Your task to perform on an android device: Search for good Korean restaurants Image 0: 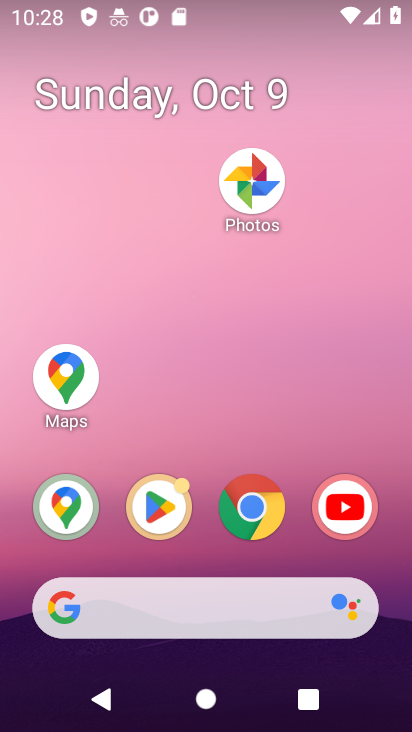
Step 0: drag from (212, 549) to (286, 0)
Your task to perform on an android device: Search for good Korean restaurants Image 1: 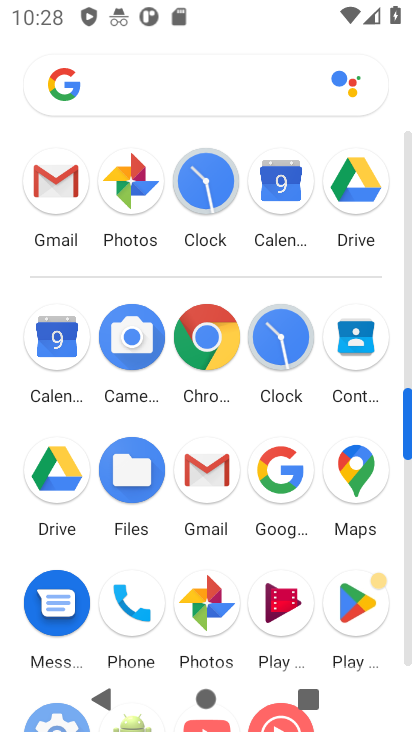
Step 1: click (209, 333)
Your task to perform on an android device: Search for good Korean restaurants Image 2: 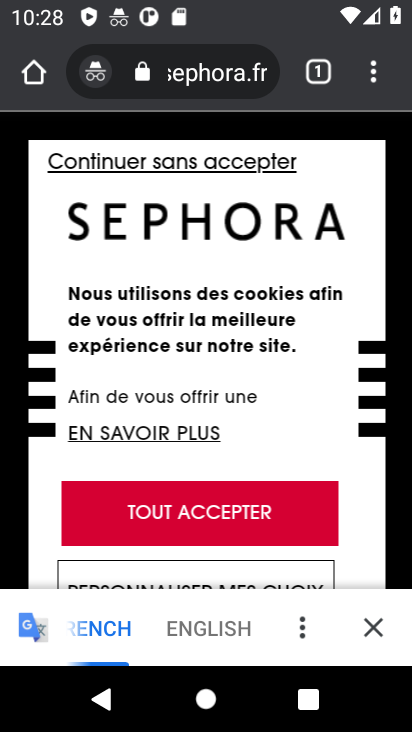
Step 2: click (206, 81)
Your task to perform on an android device: Search for good Korean restaurants Image 3: 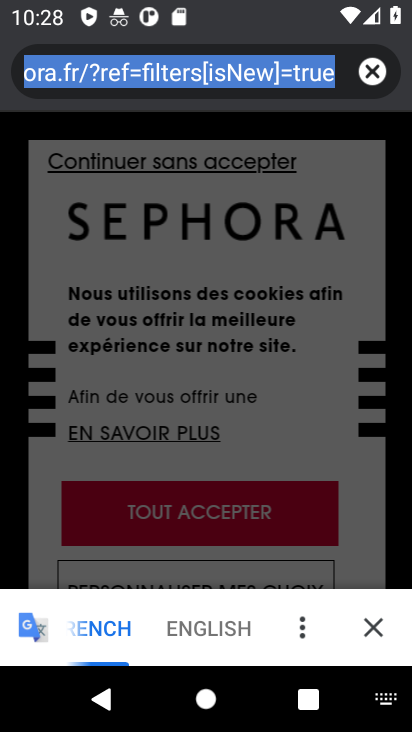
Step 3: type "good Korean restaurants"
Your task to perform on an android device: Search for good Korean restaurants Image 4: 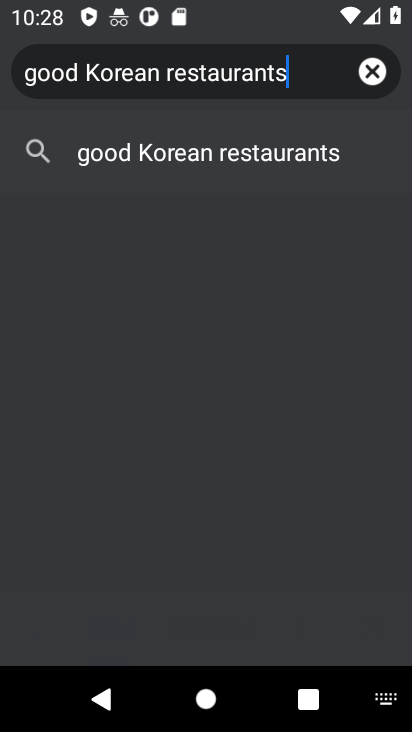
Step 4: press enter
Your task to perform on an android device: Search for good Korean restaurants Image 5: 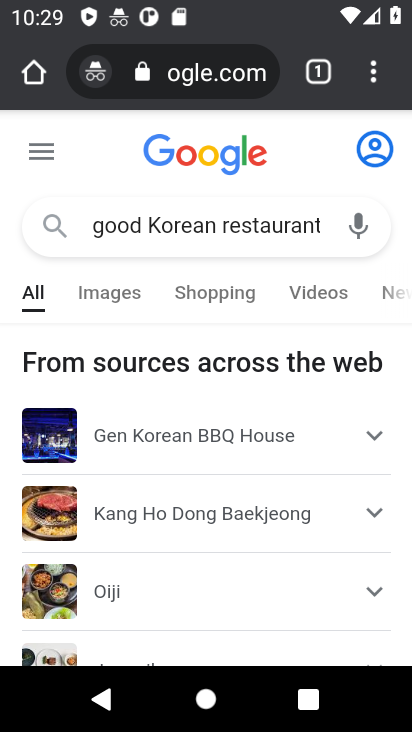
Step 5: drag from (193, 588) to (275, 82)
Your task to perform on an android device: Search for good Korean restaurants Image 6: 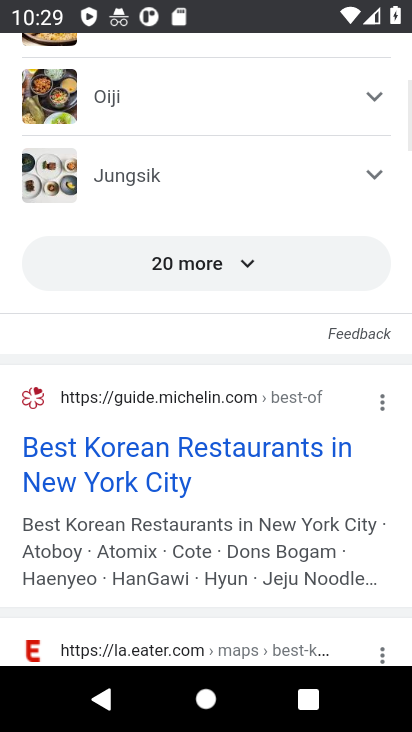
Step 6: drag from (284, 505) to (290, 183)
Your task to perform on an android device: Search for good Korean restaurants Image 7: 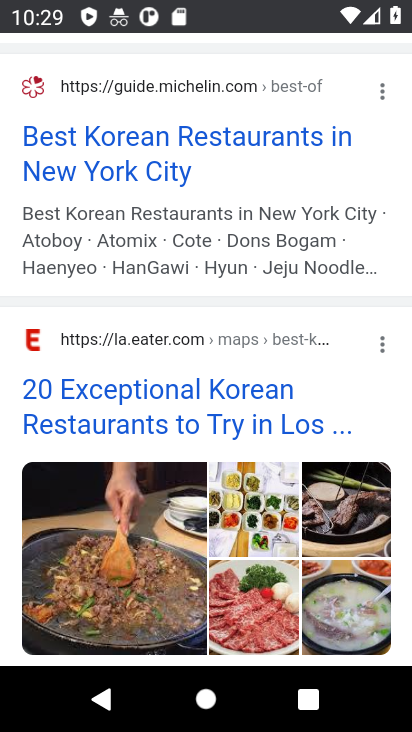
Step 7: drag from (239, 397) to (209, 572)
Your task to perform on an android device: Search for good Korean restaurants Image 8: 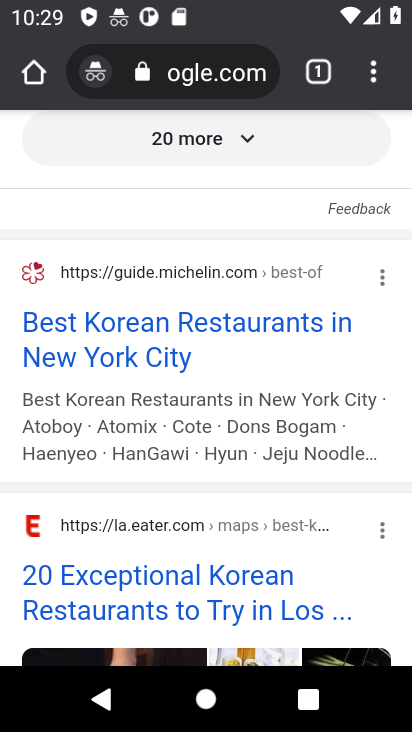
Step 8: click (192, 330)
Your task to perform on an android device: Search for good Korean restaurants Image 9: 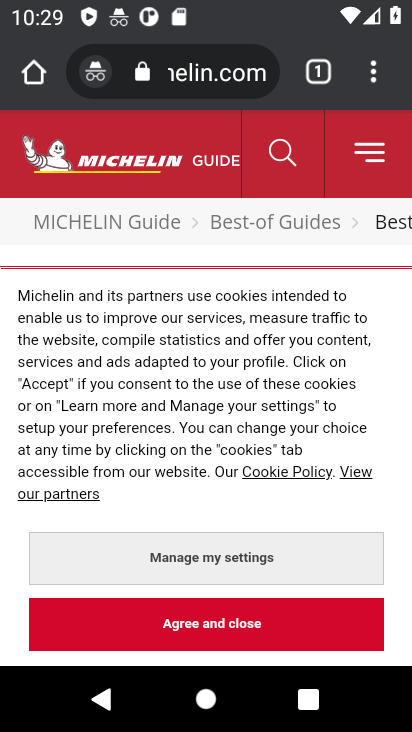
Step 9: click (290, 615)
Your task to perform on an android device: Search for good Korean restaurants Image 10: 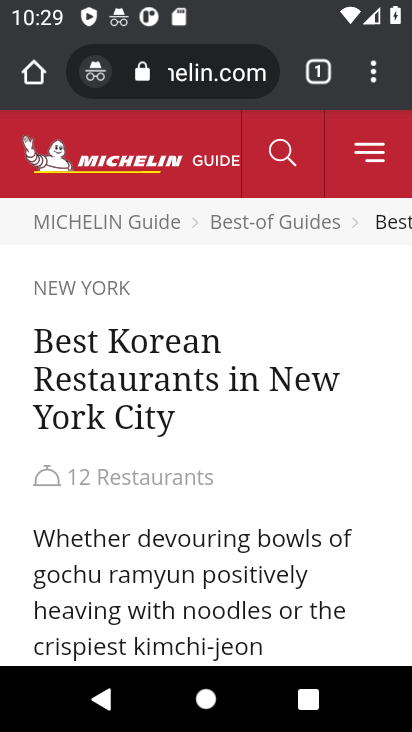
Step 10: task complete